Your task to perform on an android device: star an email in the gmail app Image 0: 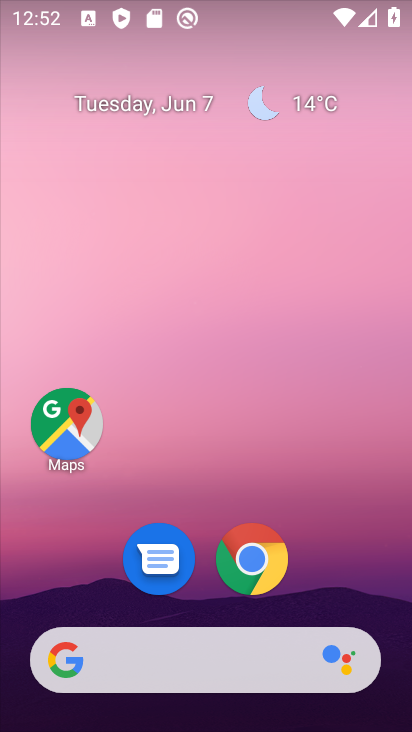
Step 0: drag from (392, 639) to (315, 52)
Your task to perform on an android device: star an email in the gmail app Image 1: 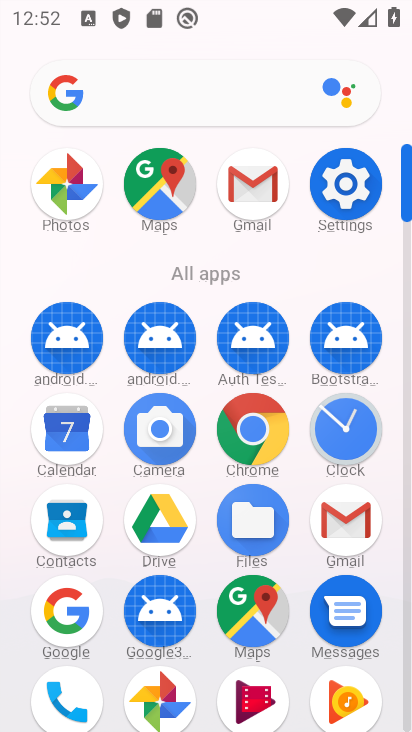
Step 1: click (408, 707)
Your task to perform on an android device: star an email in the gmail app Image 2: 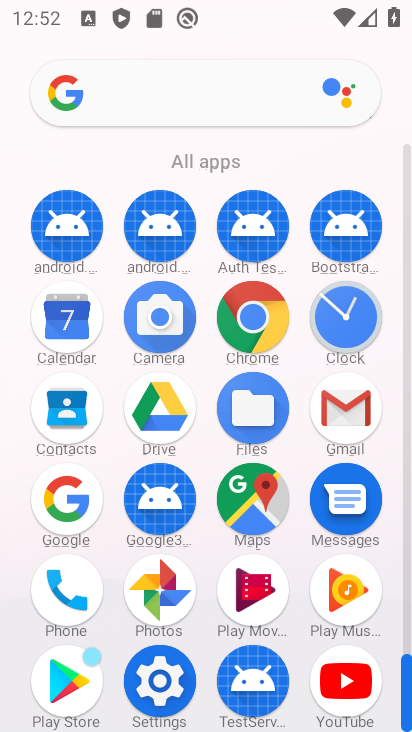
Step 2: click (346, 410)
Your task to perform on an android device: star an email in the gmail app Image 3: 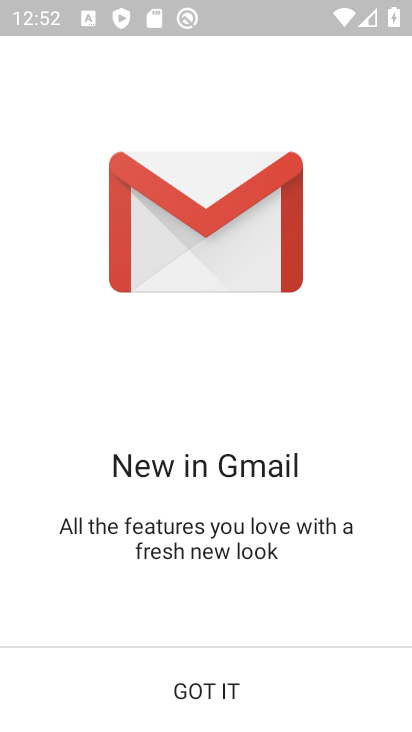
Step 3: click (208, 695)
Your task to perform on an android device: star an email in the gmail app Image 4: 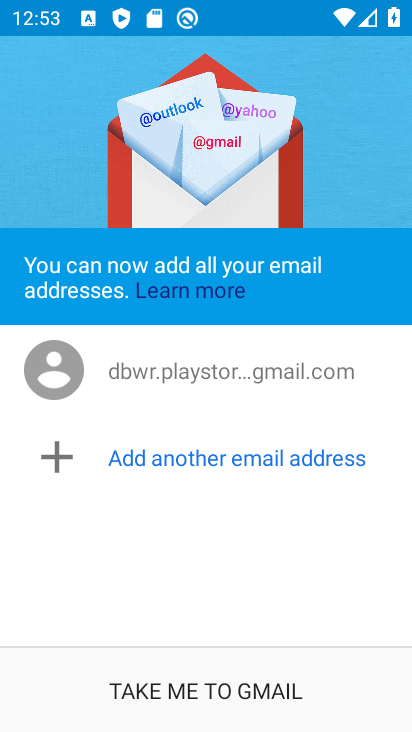
Step 4: click (208, 695)
Your task to perform on an android device: star an email in the gmail app Image 5: 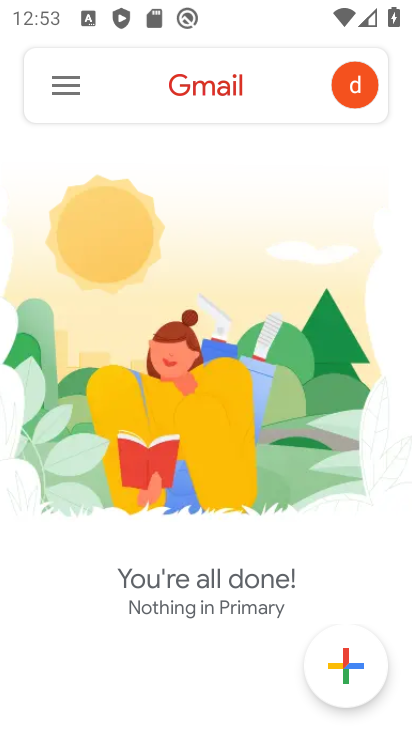
Step 5: click (67, 81)
Your task to perform on an android device: star an email in the gmail app Image 6: 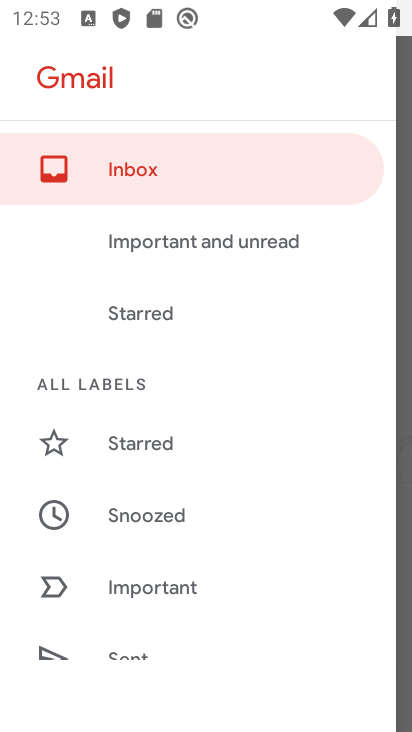
Step 6: drag from (233, 619) to (250, 260)
Your task to perform on an android device: star an email in the gmail app Image 7: 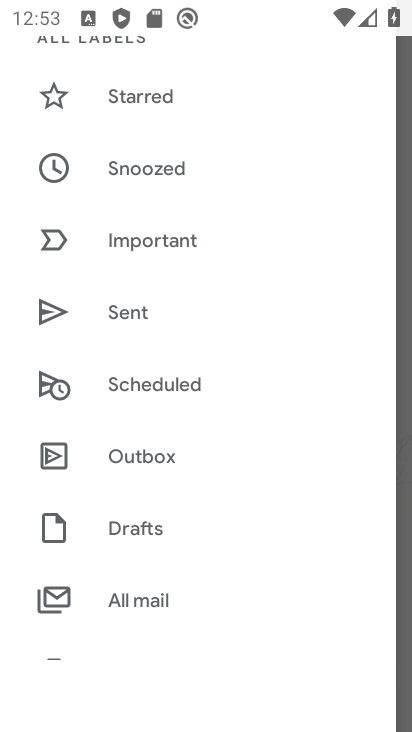
Step 7: drag from (226, 561) to (219, 156)
Your task to perform on an android device: star an email in the gmail app Image 8: 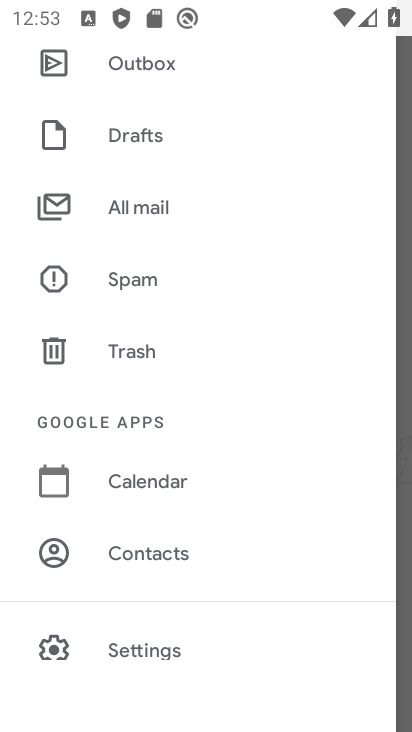
Step 8: click (156, 201)
Your task to perform on an android device: star an email in the gmail app Image 9: 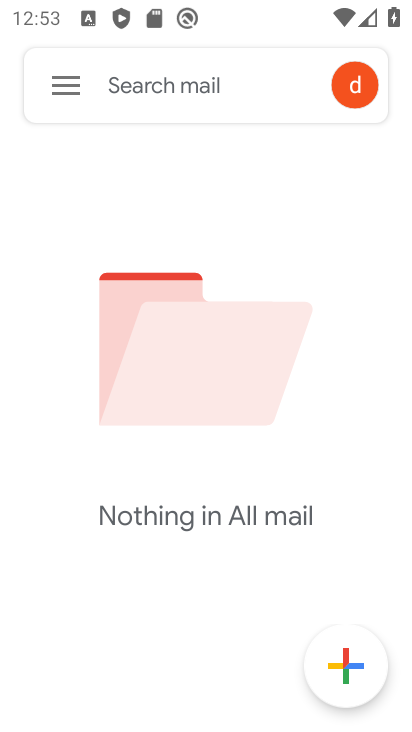
Step 9: task complete